Your task to perform on an android device: open sync settings in chrome Image 0: 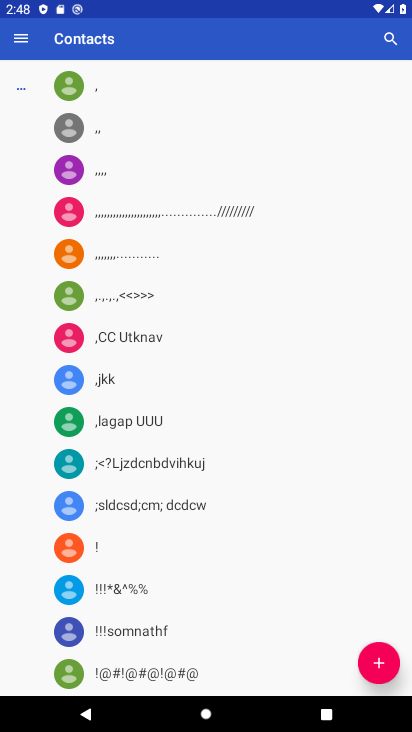
Step 0: press home button
Your task to perform on an android device: open sync settings in chrome Image 1: 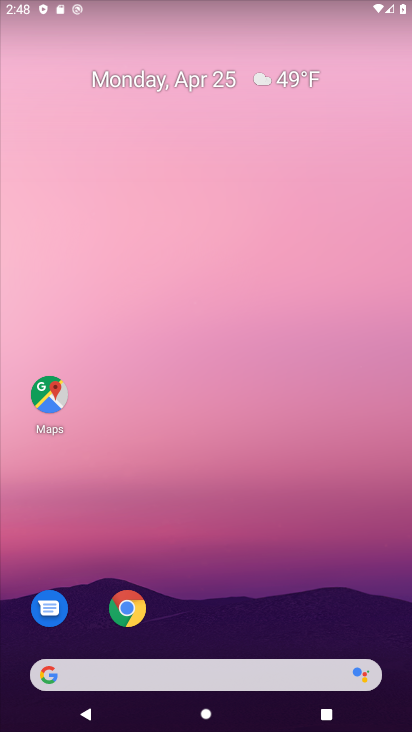
Step 1: click (140, 608)
Your task to perform on an android device: open sync settings in chrome Image 2: 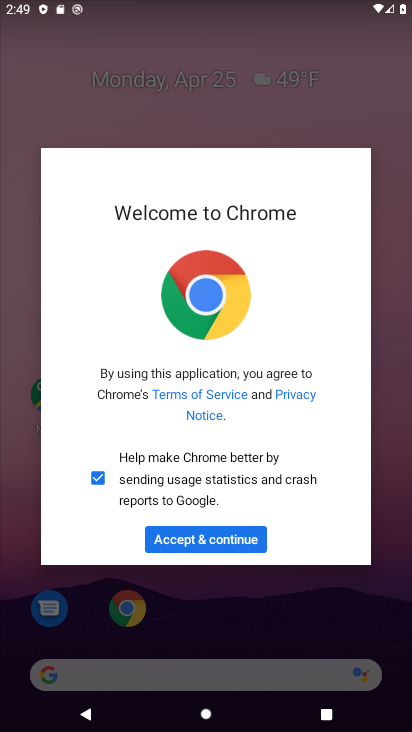
Step 2: click (198, 541)
Your task to perform on an android device: open sync settings in chrome Image 3: 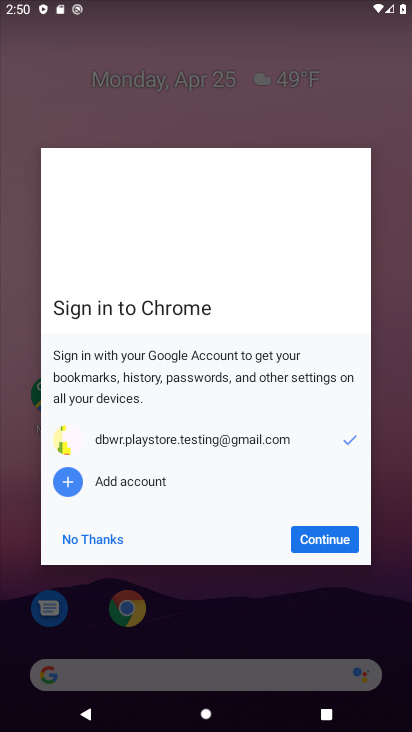
Step 3: click (342, 533)
Your task to perform on an android device: open sync settings in chrome Image 4: 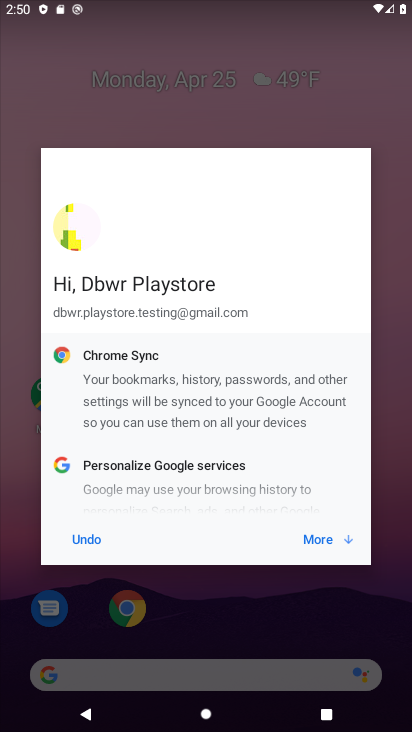
Step 4: click (323, 542)
Your task to perform on an android device: open sync settings in chrome Image 5: 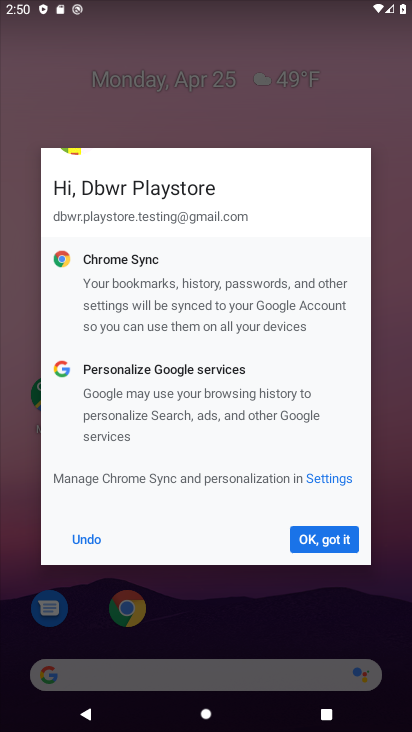
Step 5: click (314, 541)
Your task to perform on an android device: open sync settings in chrome Image 6: 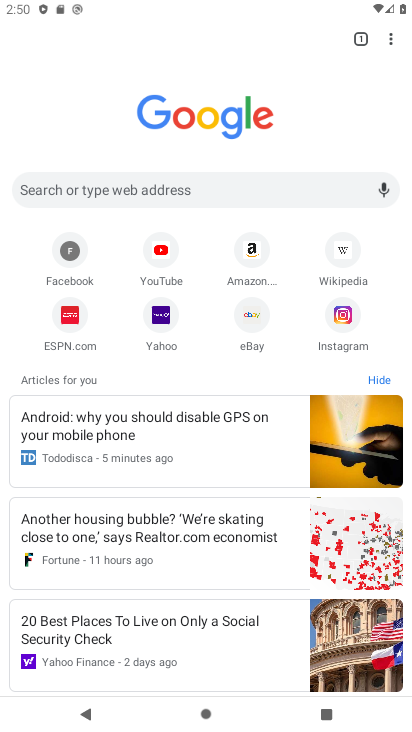
Step 6: drag from (391, 43) to (264, 329)
Your task to perform on an android device: open sync settings in chrome Image 7: 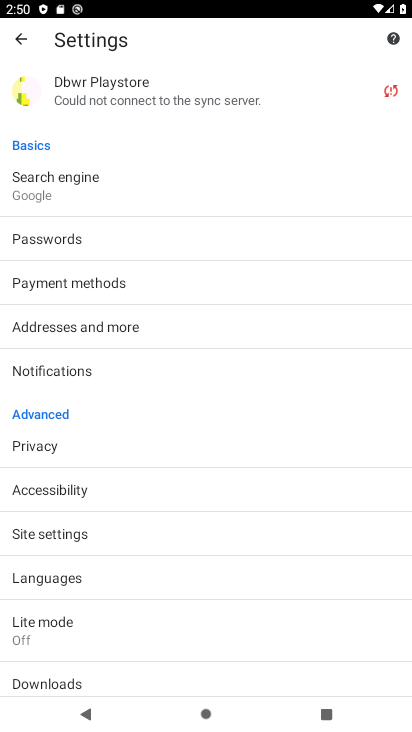
Step 7: click (127, 106)
Your task to perform on an android device: open sync settings in chrome Image 8: 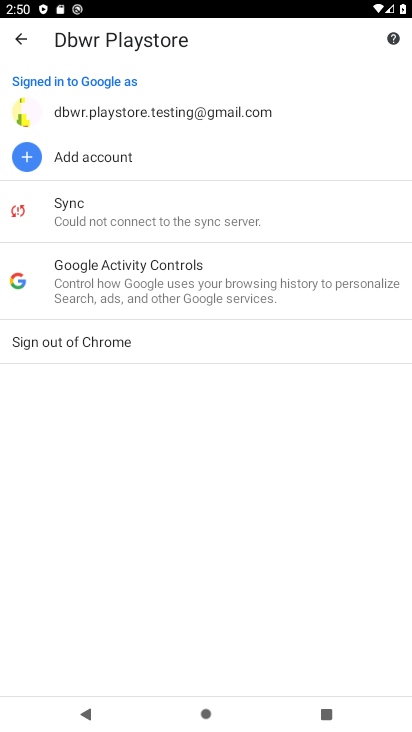
Step 8: click (144, 231)
Your task to perform on an android device: open sync settings in chrome Image 9: 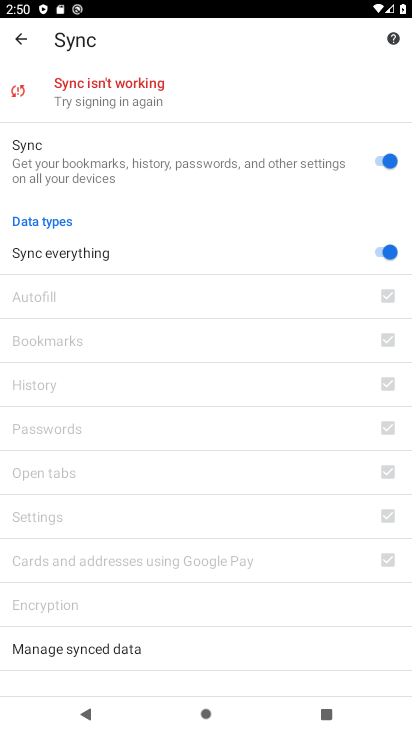
Step 9: task complete